Your task to perform on an android device: uninstall "NewsBreak: Local News & Alerts" Image 0: 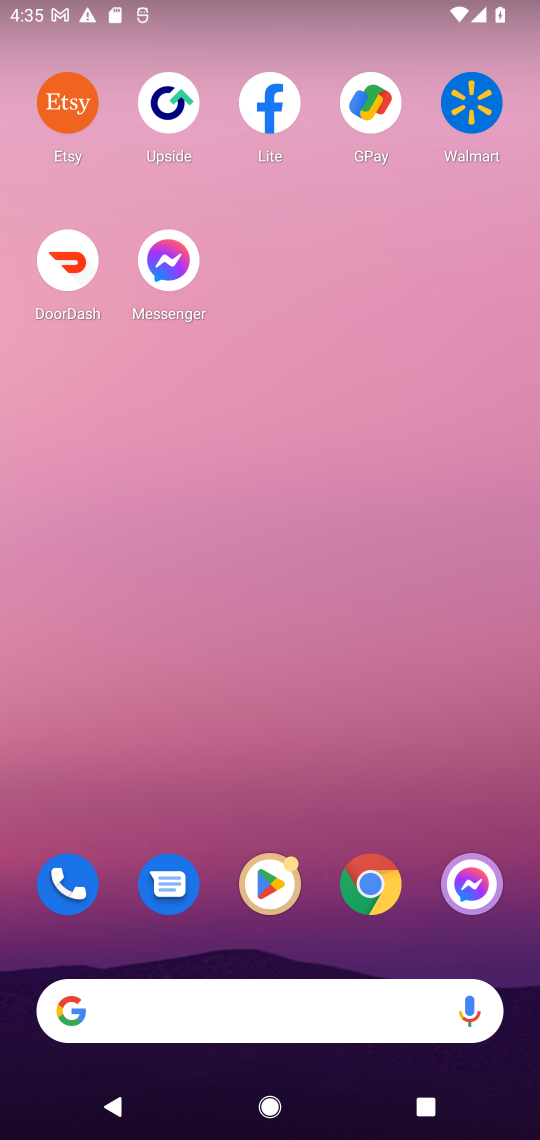
Step 0: click (266, 899)
Your task to perform on an android device: uninstall "NewsBreak: Local News & Alerts" Image 1: 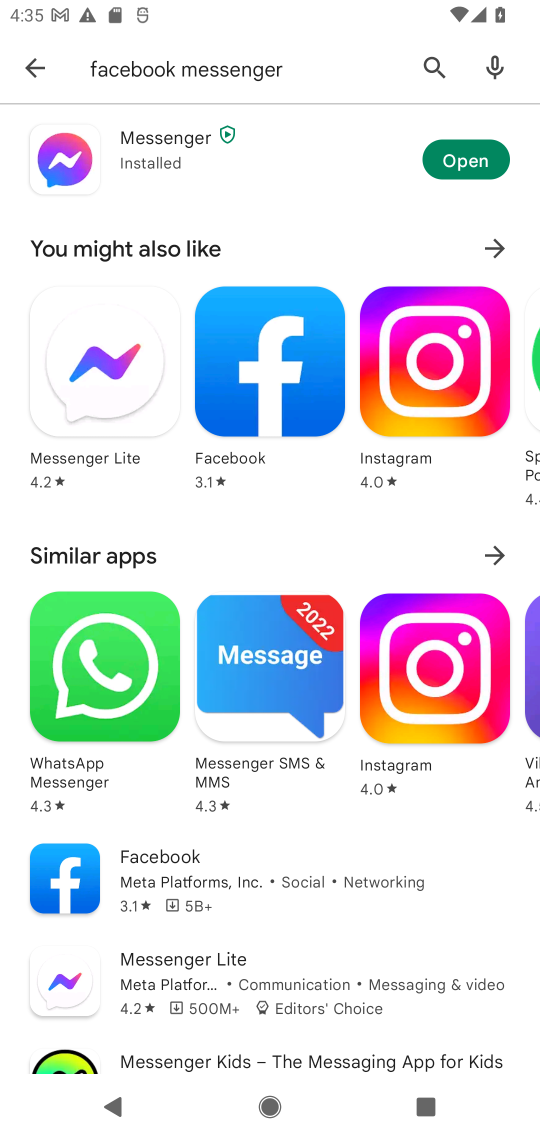
Step 1: click (32, 71)
Your task to perform on an android device: uninstall "NewsBreak: Local News & Alerts" Image 2: 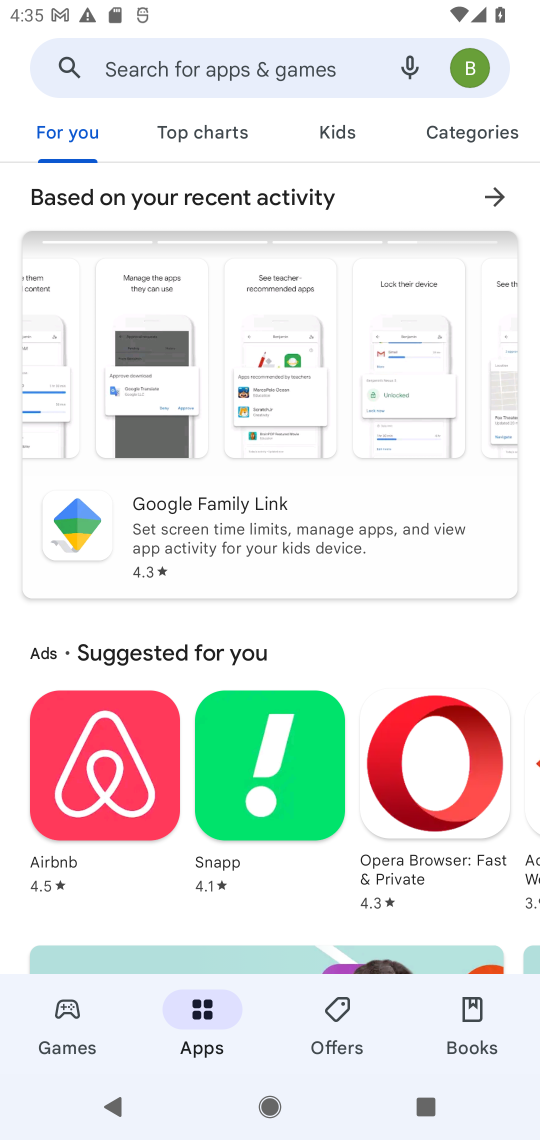
Step 2: click (154, 71)
Your task to perform on an android device: uninstall "NewsBreak: Local News & Alerts" Image 3: 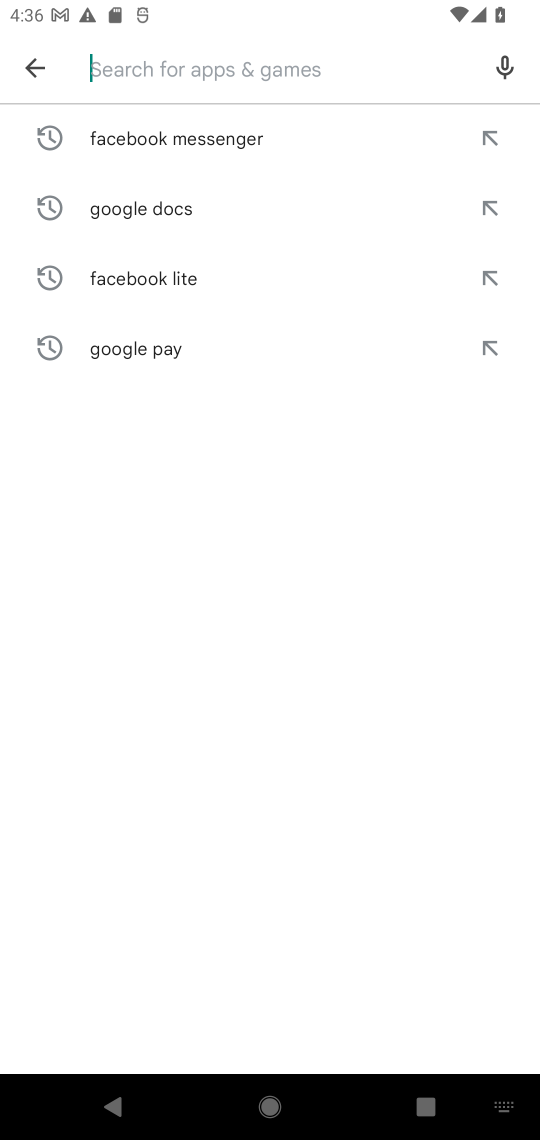
Step 3: type "NewsBreak: Local News & Alerts"
Your task to perform on an android device: uninstall "NewsBreak: Local News & Alerts" Image 4: 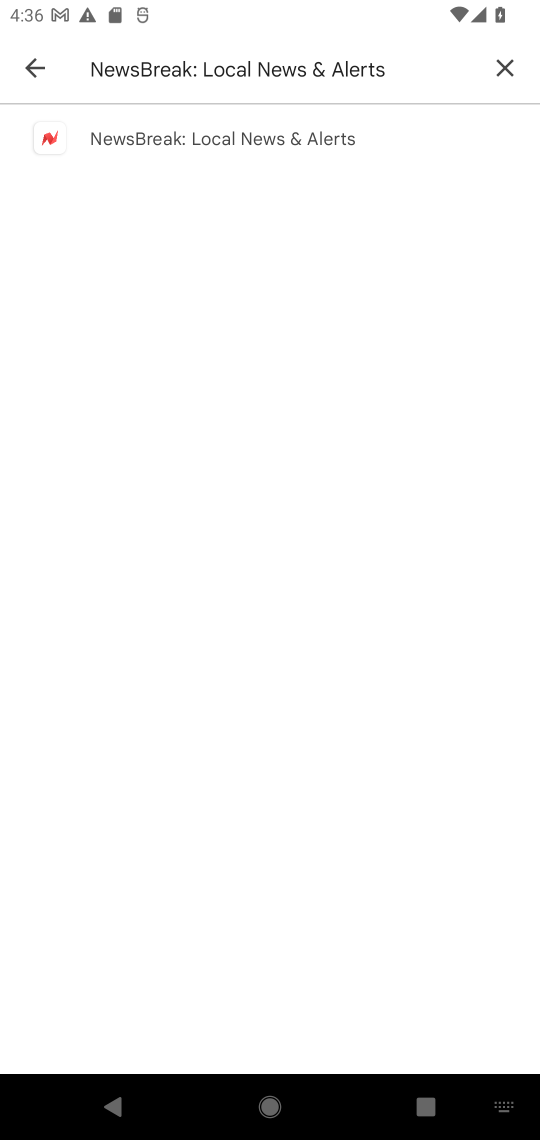
Step 4: click (269, 128)
Your task to perform on an android device: uninstall "NewsBreak: Local News & Alerts" Image 5: 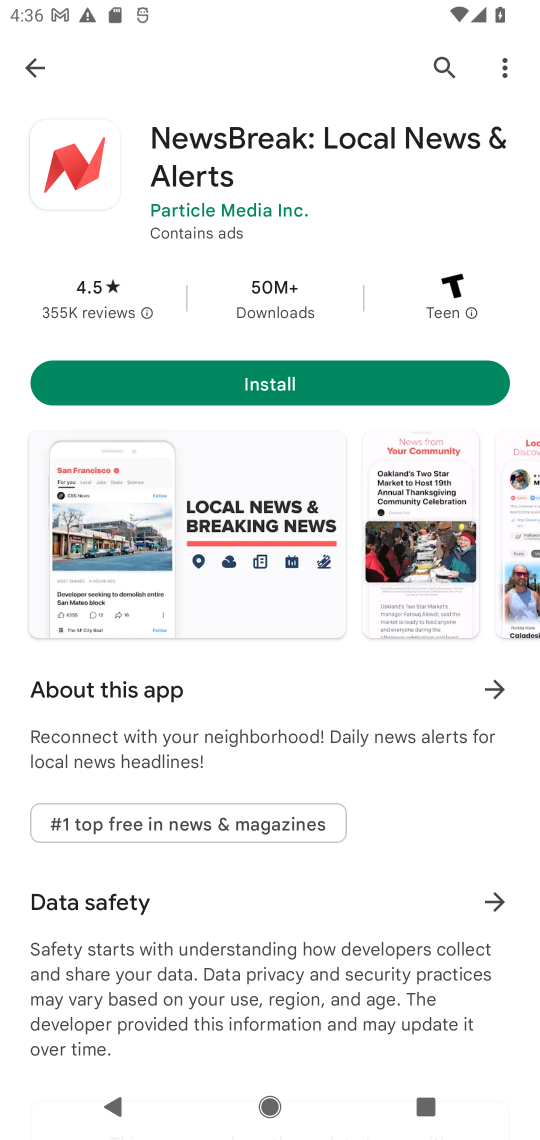
Step 5: click (255, 391)
Your task to perform on an android device: uninstall "NewsBreak: Local News & Alerts" Image 6: 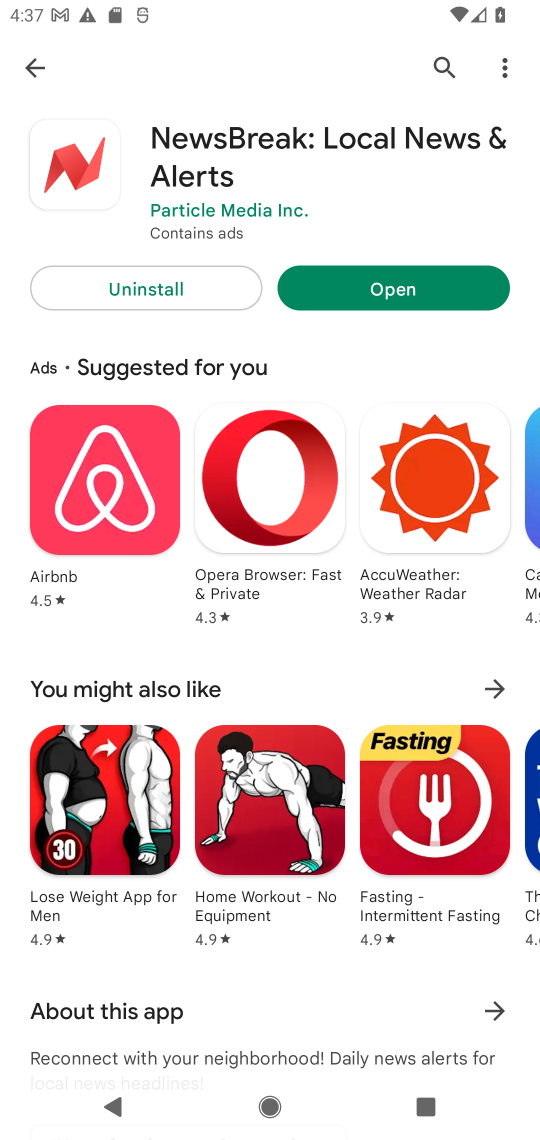
Step 6: click (44, 76)
Your task to perform on an android device: uninstall "NewsBreak: Local News & Alerts" Image 7: 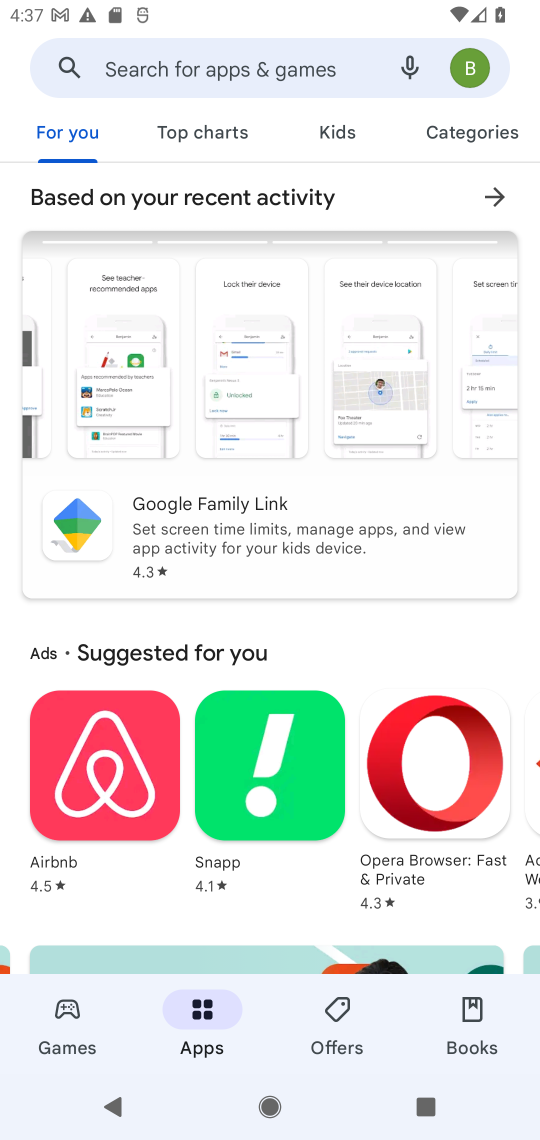
Step 7: click (304, 75)
Your task to perform on an android device: uninstall "NewsBreak: Local News & Alerts" Image 8: 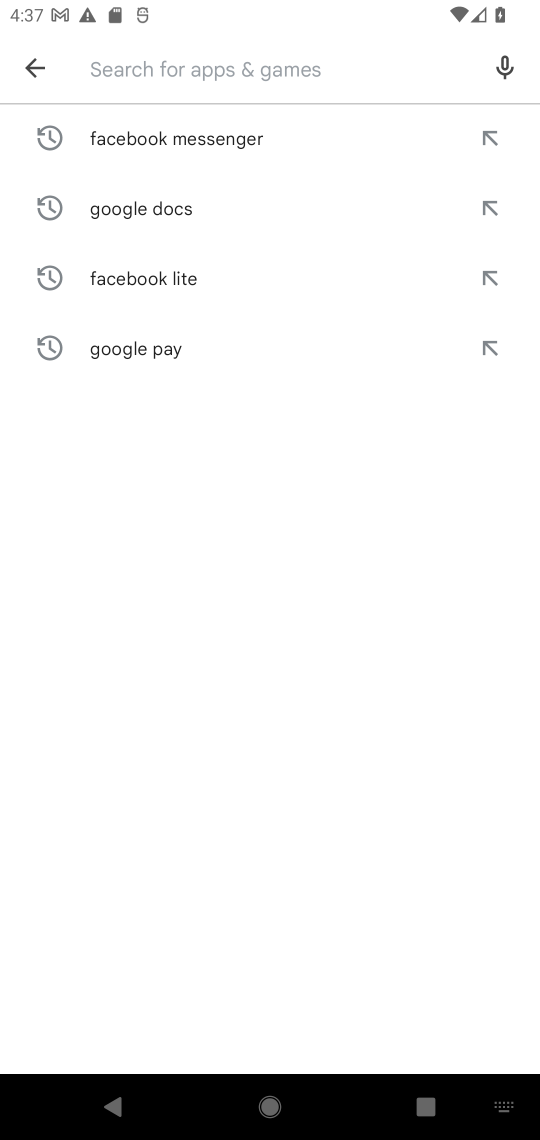
Step 8: type "NewsBreak: Local News & Alerts"
Your task to perform on an android device: uninstall "NewsBreak: Local News & Alerts" Image 9: 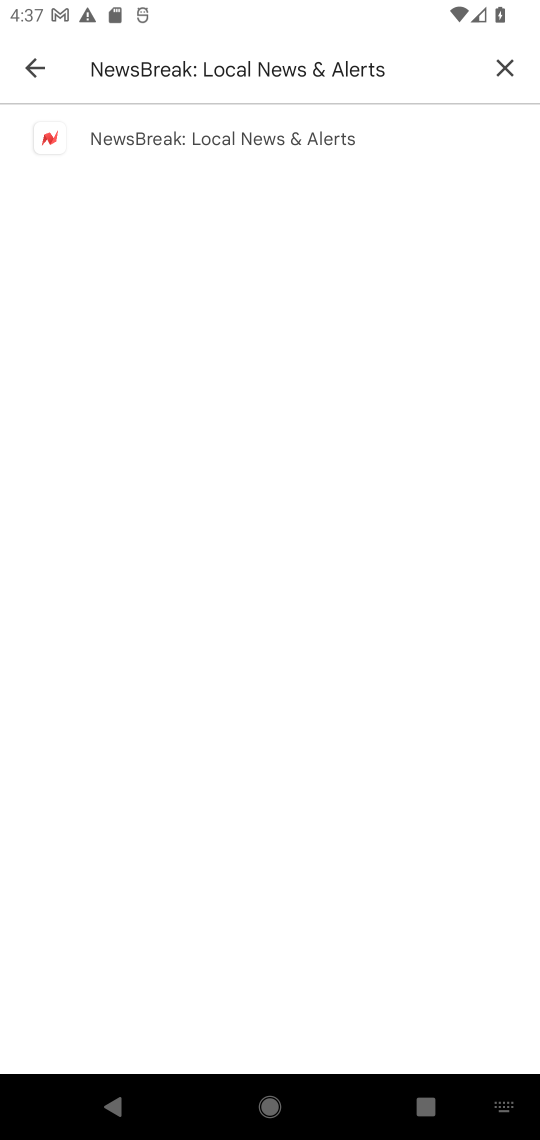
Step 9: click (82, 131)
Your task to perform on an android device: uninstall "NewsBreak: Local News & Alerts" Image 10: 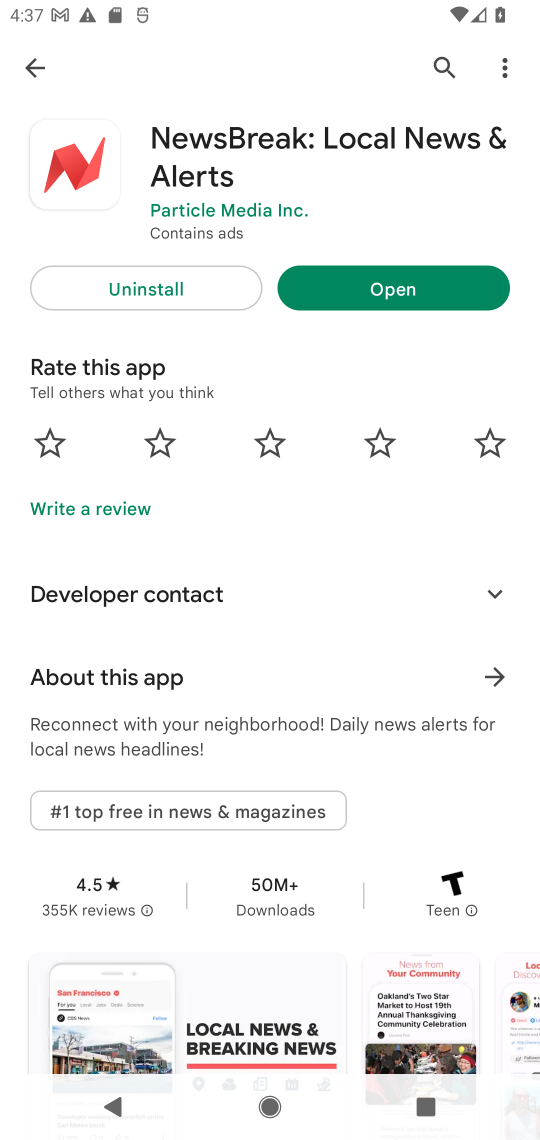
Step 10: click (84, 282)
Your task to perform on an android device: uninstall "NewsBreak: Local News & Alerts" Image 11: 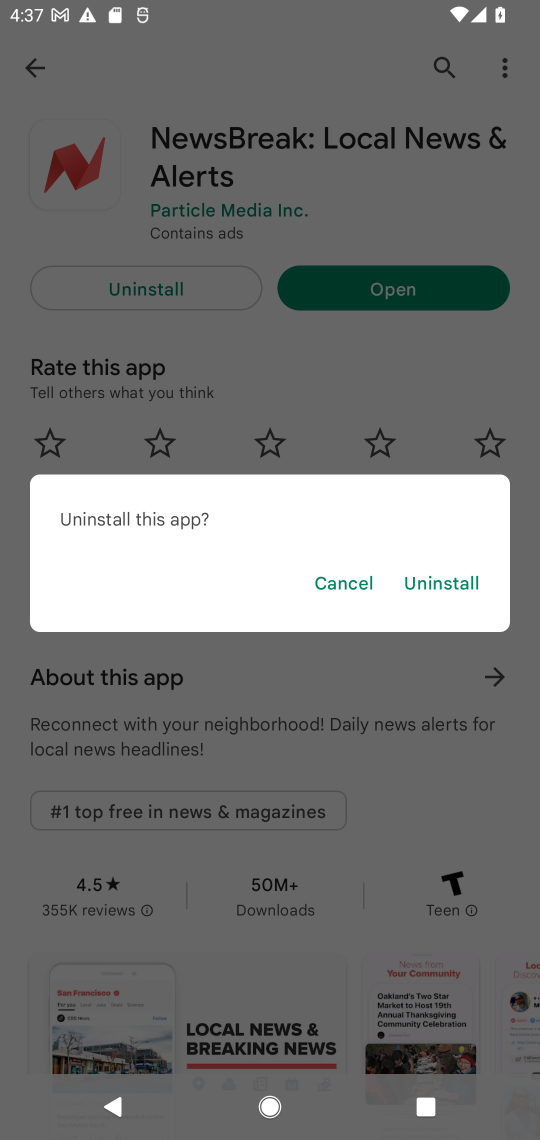
Step 11: click (434, 582)
Your task to perform on an android device: uninstall "NewsBreak: Local News & Alerts" Image 12: 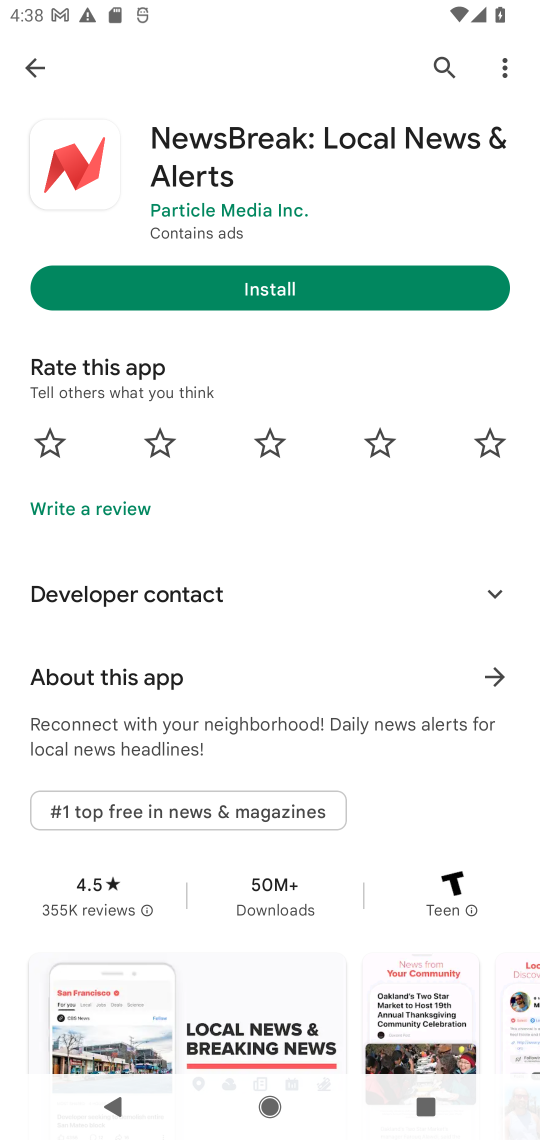
Step 12: task complete